Your task to perform on an android device: Open Google Maps Image 0: 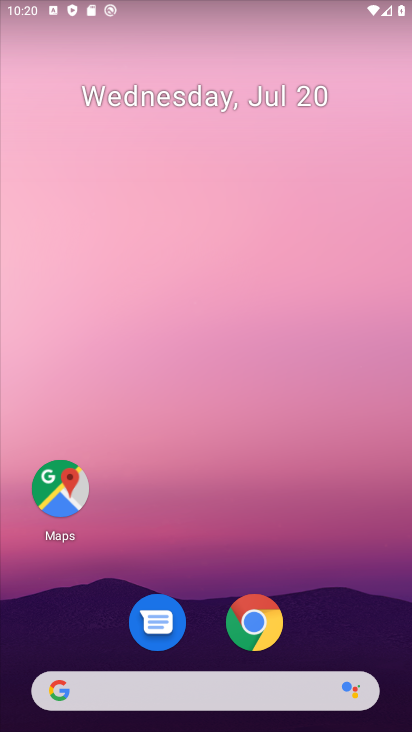
Step 0: drag from (175, 693) to (166, 22)
Your task to perform on an android device: Open Google Maps Image 1: 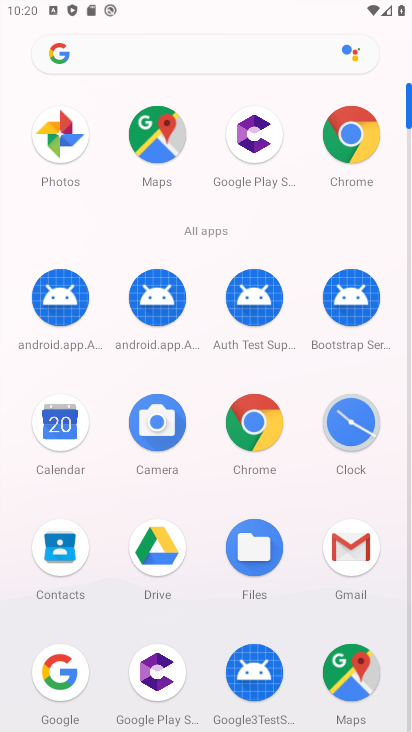
Step 1: click (174, 129)
Your task to perform on an android device: Open Google Maps Image 2: 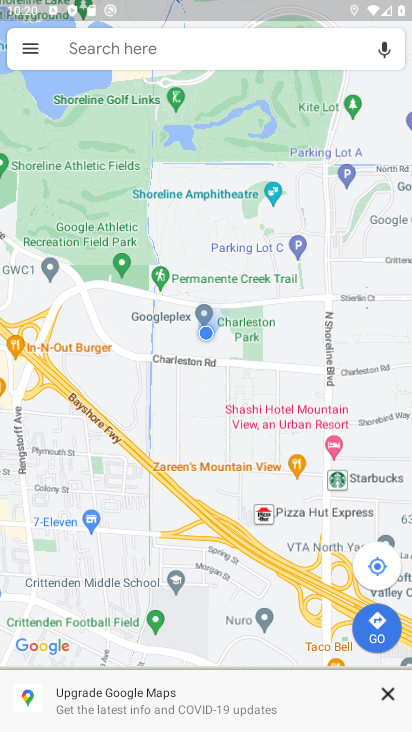
Step 2: task complete